Your task to perform on an android device: open a new tab in the chrome app Image 0: 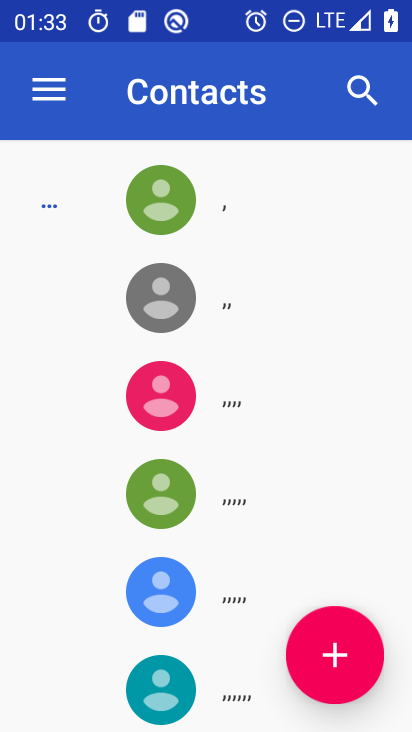
Step 0: press home button
Your task to perform on an android device: open a new tab in the chrome app Image 1: 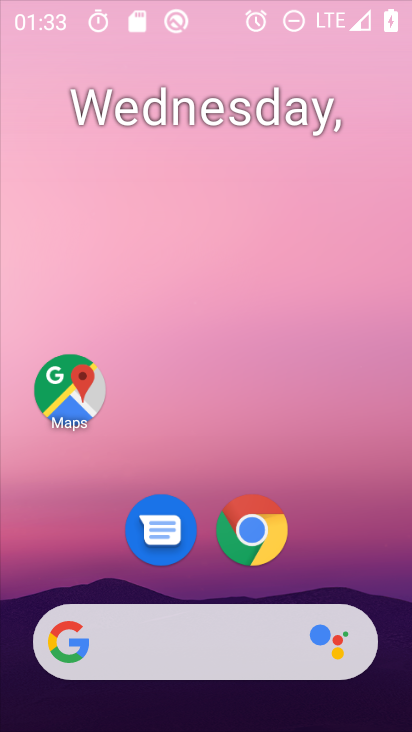
Step 1: drag from (267, 653) to (286, 102)
Your task to perform on an android device: open a new tab in the chrome app Image 2: 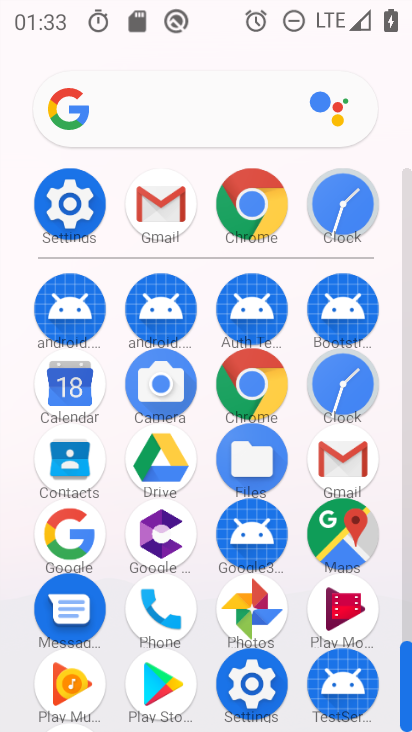
Step 2: click (268, 374)
Your task to perform on an android device: open a new tab in the chrome app Image 3: 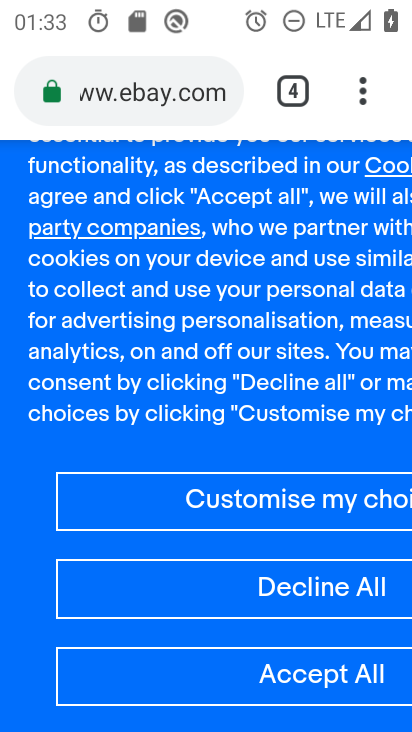
Step 3: click (364, 73)
Your task to perform on an android device: open a new tab in the chrome app Image 4: 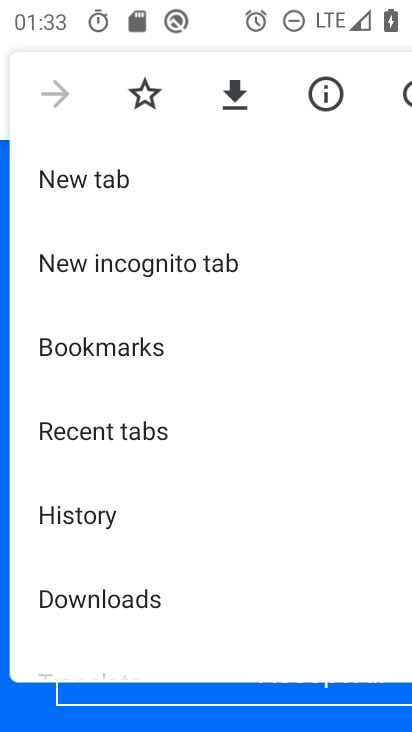
Step 4: click (145, 194)
Your task to perform on an android device: open a new tab in the chrome app Image 5: 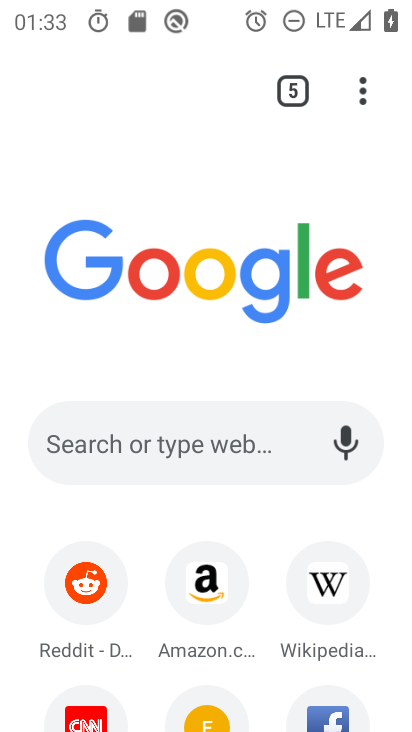
Step 5: task complete